Your task to perform on an android device: turn pop-ups off in chrome Image 0: 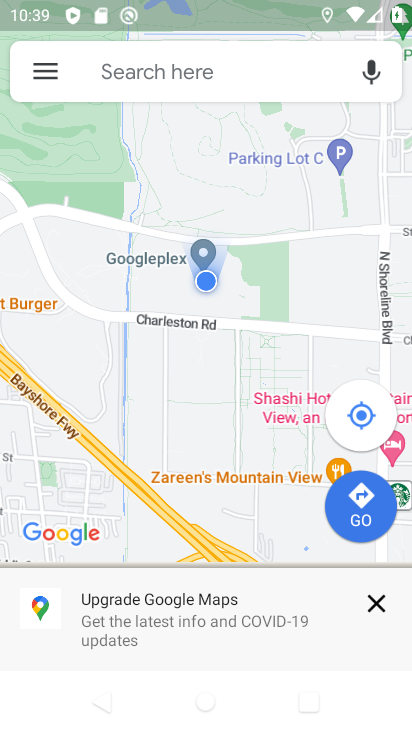
Step 0: press home button
Your task to perform on an android device: turn pop-ups off in chrome Image 1: 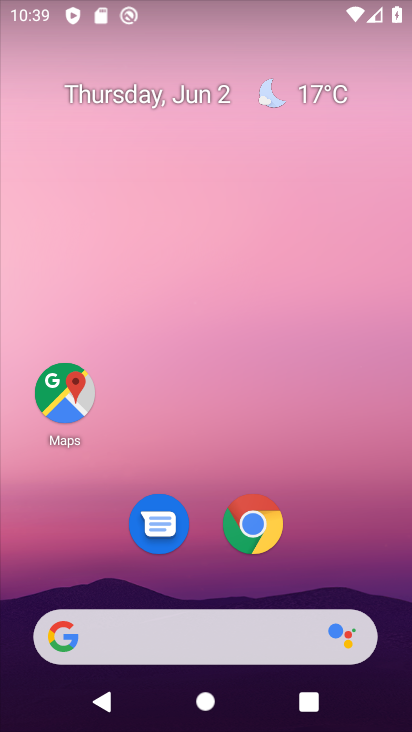
Step 1: click (263, 510)
Your task to perform on an android device: turn pop-ups off in chrome Image 2: 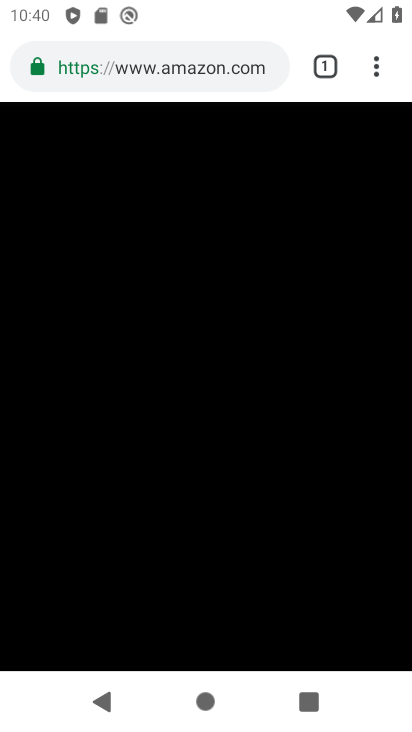
Step 2: click (373, 66)
Your task to perform on an android device: turn pop-ups off in chrome Image 3: 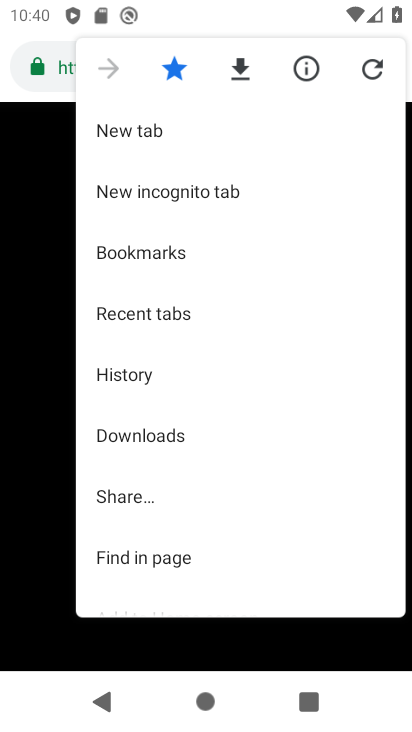
Step 3: drag from (209, 512) to (264, 132)
Your task to perform on an android device: turn pop-ups off in chrome Image 4: 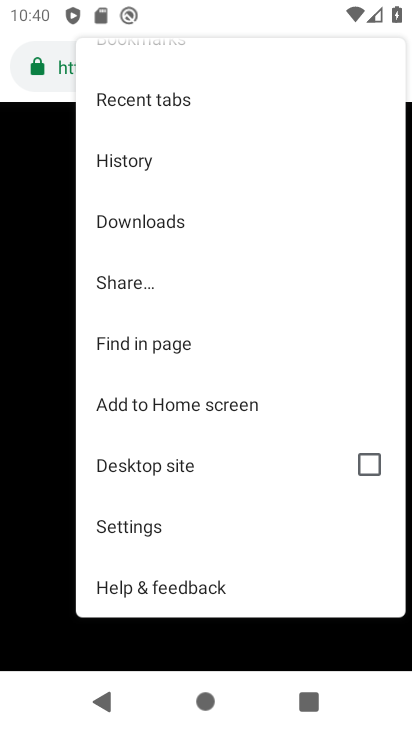
Step 4: click (195, 524)
Your task to perform on an android device: turn pop-ups off in chrome Image 5: 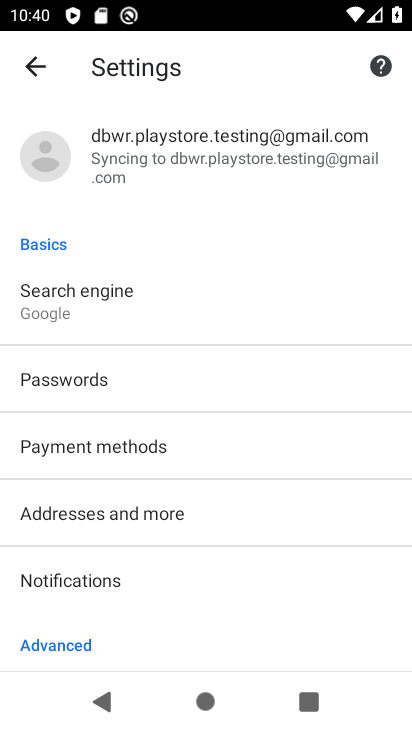
Step 5: drag from (242, 519) to (252, 215)
Your task to perform on an android device: turn pop-ups off in chrome Image 6: 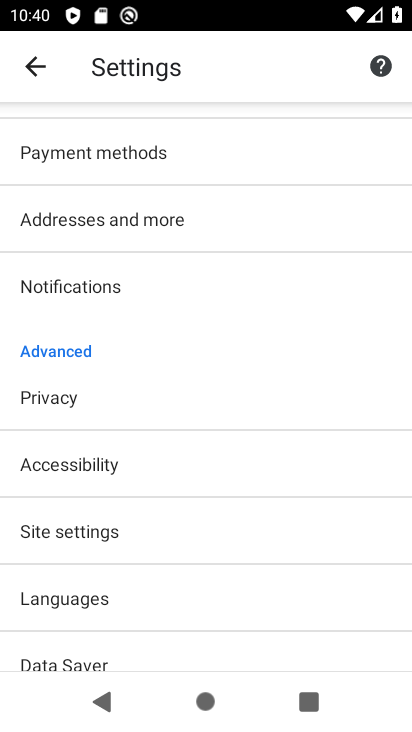
Step 6: click (182, 537)
Your task to perform on an android device: turn pop-ups off in chrome Image 7: 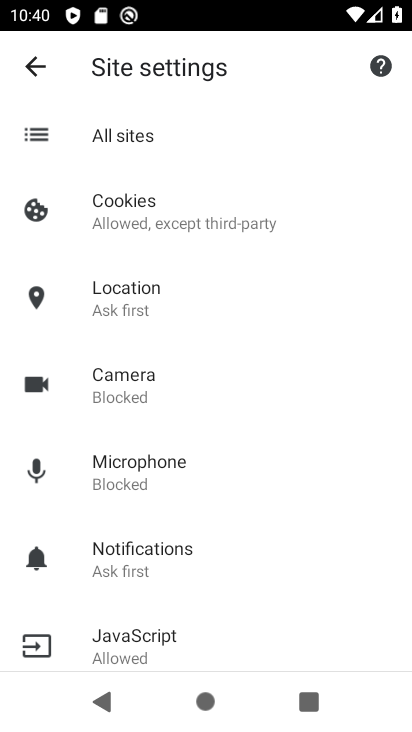
Step 7: drag from (257, 570) to (278, 328)
Your task to perform on an android device: turn pop-ups off in chrome Image 8: 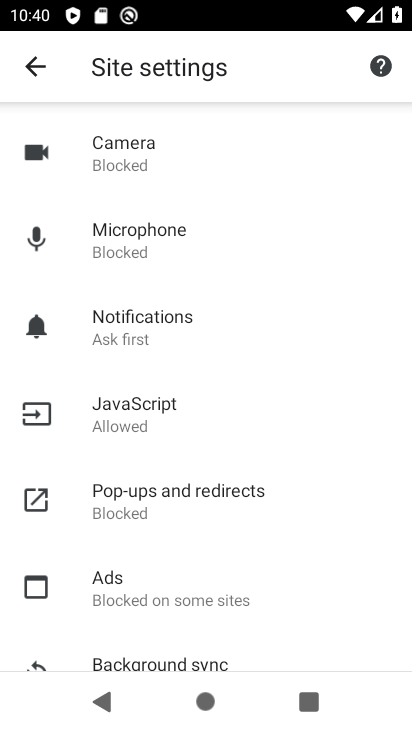
Step 8: click (236, 501)
Your task to perform on an android device: turn pop-ups off in chrome Image 9: 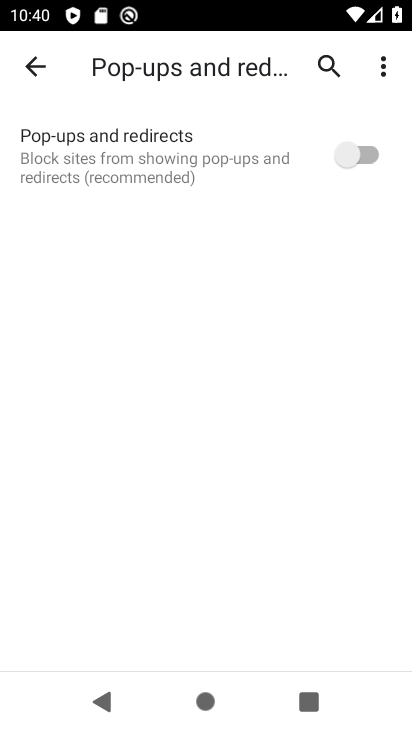
Step 9: task complete